Your task to perform on an android device: Open Google Chrome and click the shortcut for Amazon.com Image 0: 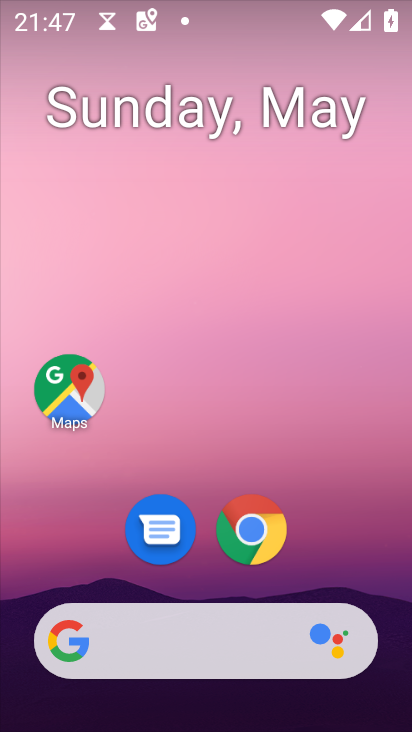
Step 0: click (246, 529)
Your task to perform on an android device: Open Google Chrome and click the shortcut for Amazon.com Image 1: 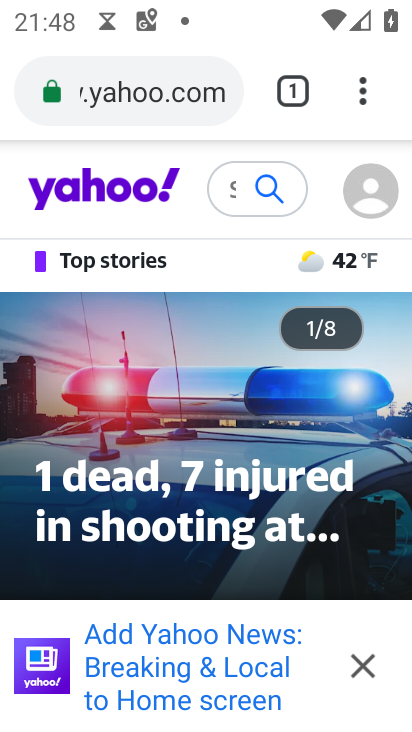
Step 1: click (369, 90)
Your task to perform on an android device: Open Google Chrome and click the shortcut for Amazon.com Image 2: 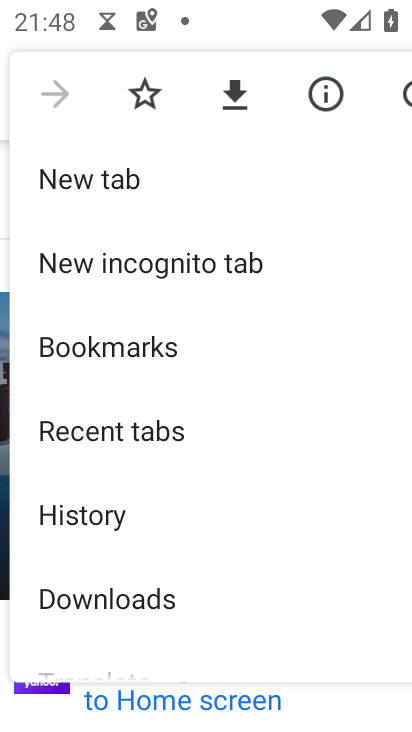
Step 2: click (114, 194)
Your task to perform on an android device: Open Google Chrome and click the shortcut for Amazon.com Image 3: 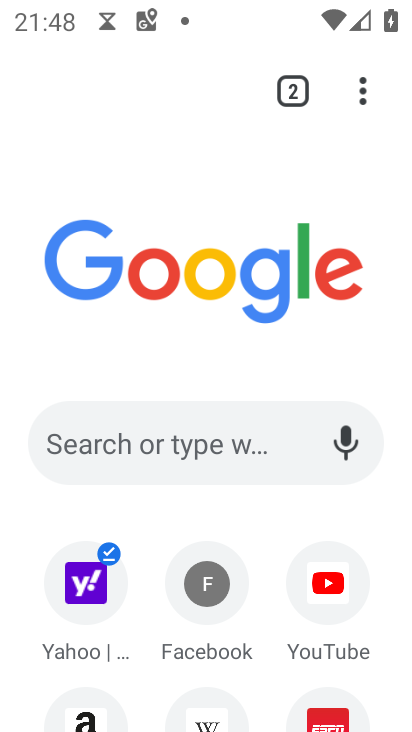
Step 3: click (90, 711)
Your task to perform on an android device: Open Google Chrome and click the shortcut for Amazon.com Image 4: 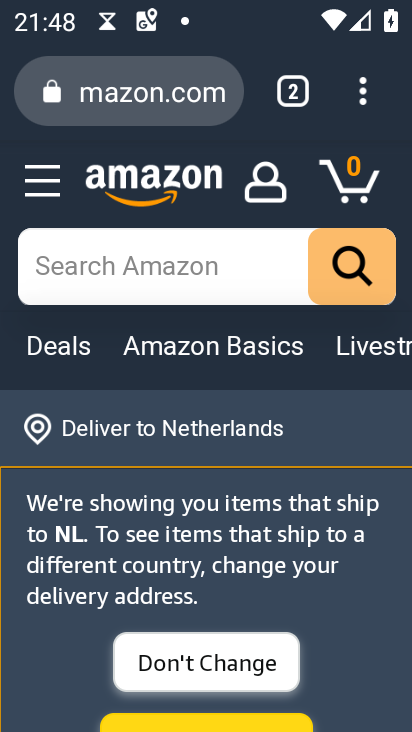
Step 4: task complete